Your task to perform on an android device: Open settings on Google Maps Image 0: 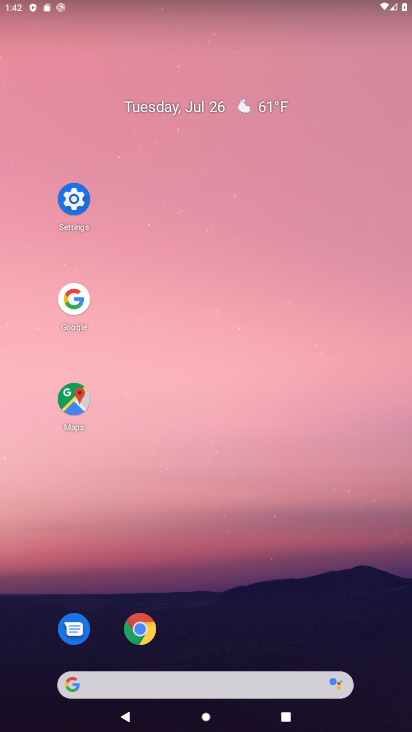
Step 0: click (73, 393)
Your task to perform on an android device: Open settings on Google Maps Image 1: 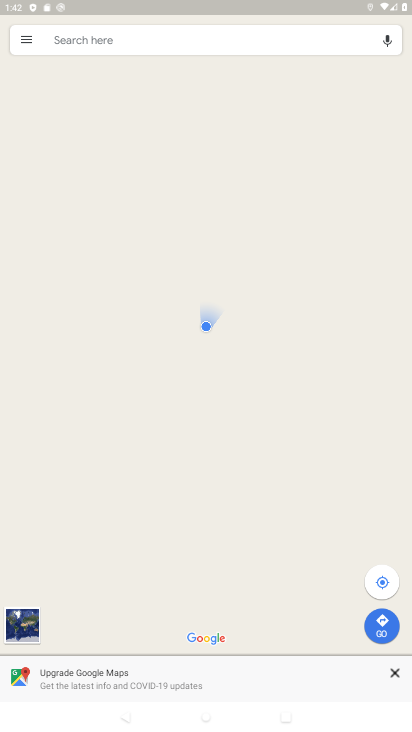
Step 1: click (35, 42)
Your task to perform on an android device: Open settings on Google Maps Image 2: 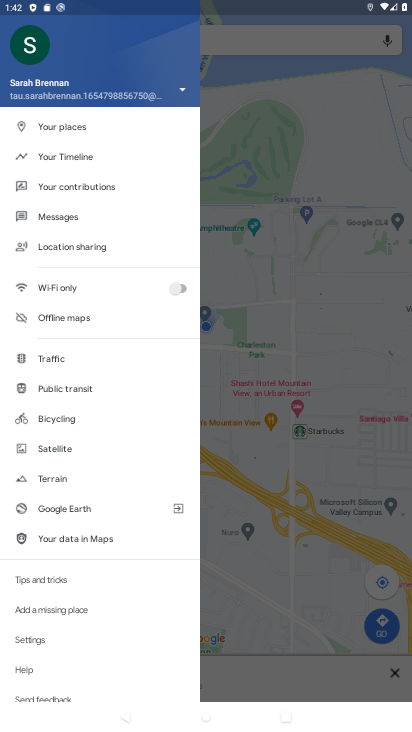
Step 2: click (85, 638)
Your task to perform on an android device: Open settings on Google Maps Image 3: 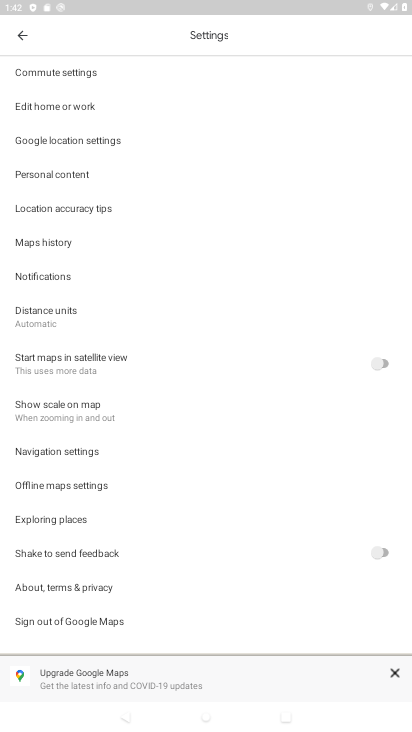
Step 3: task complete